Your task to perform on an android device: Go to battery settings Image 0: 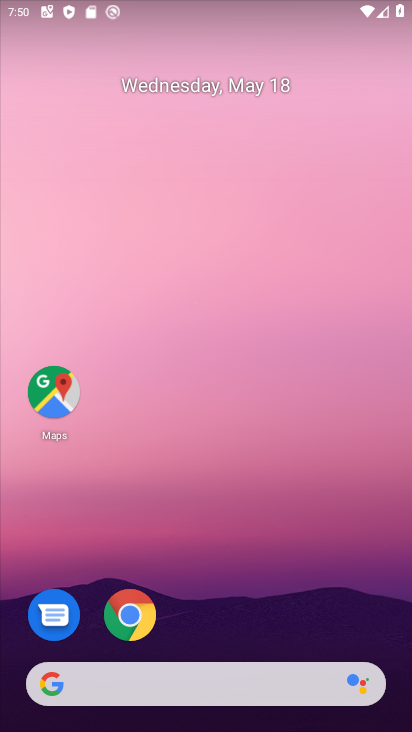
Step 0: drag from (287, 639) to (332, 49)
Your task to perform on an android device: Go to battery settings Image 1: 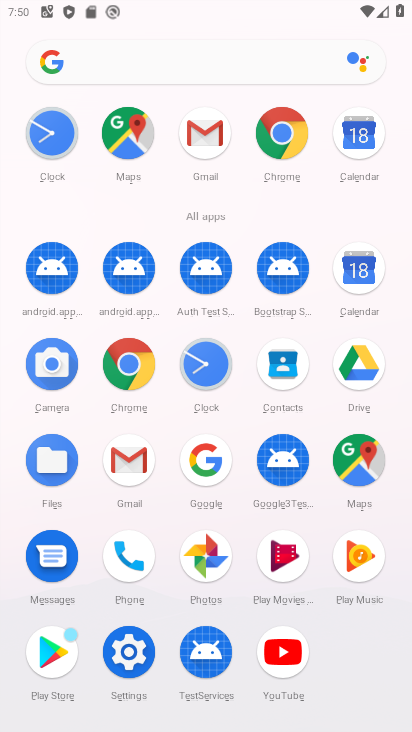
Step 1: click (136, 674)
Your task to perform on an android device: Go to battery settings Image 2: 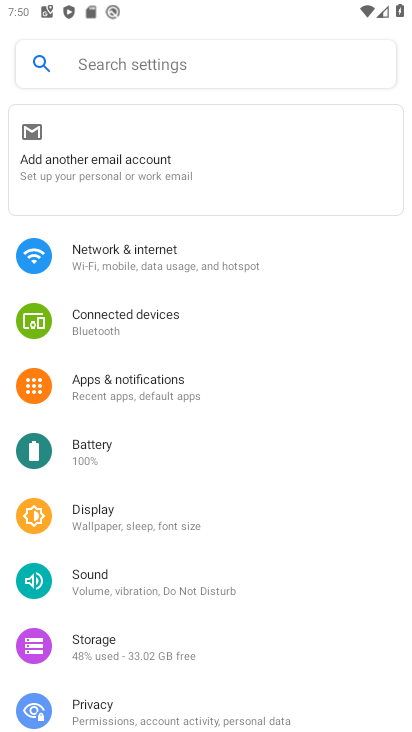
Step 2: drag from (136, 674) to (158, 340)
Your task to perform on an android device: Go to battery settings Image 3: 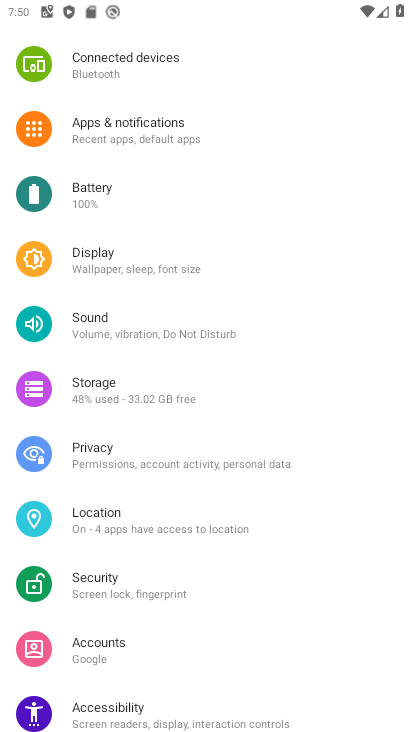
Step 3: click (167, 197)
Your task to perform on an android device: Go to battery settings Image 4: 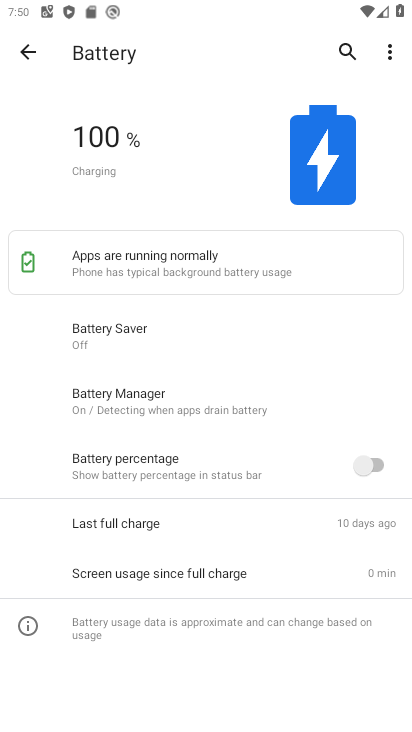
Step 4: task complete